Your task to perform on an android device: Go to location settings Image 0: 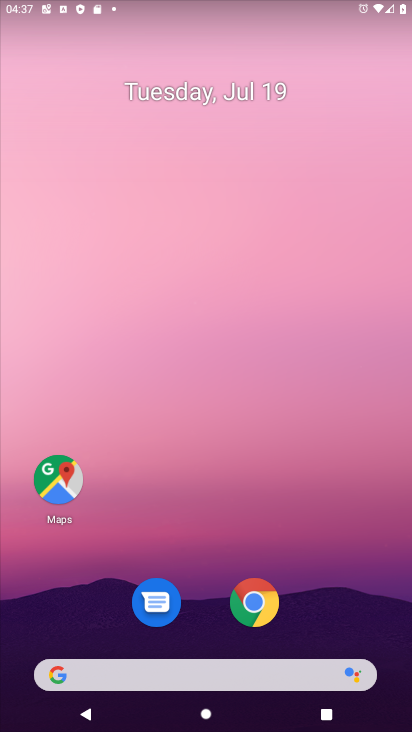
Step 0: drag from (220, 622) to (272, 141)
Your task to perform on an android device: Go to location settings Image 1: 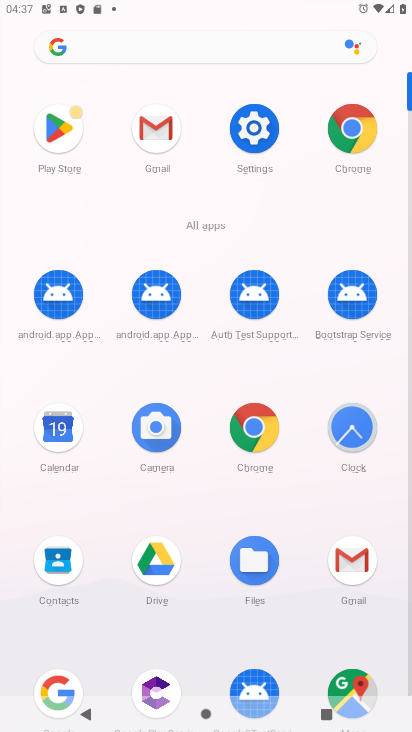
Step 1: click (255, 130)
Your task to perform on an android device: Go to location settings Image 2: 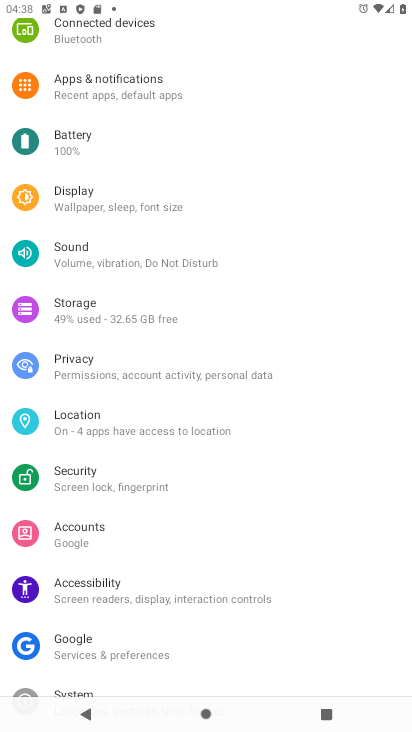
Step 2: click (131, 421)
Your task to perform on an android device: Go to location settings Image 3: 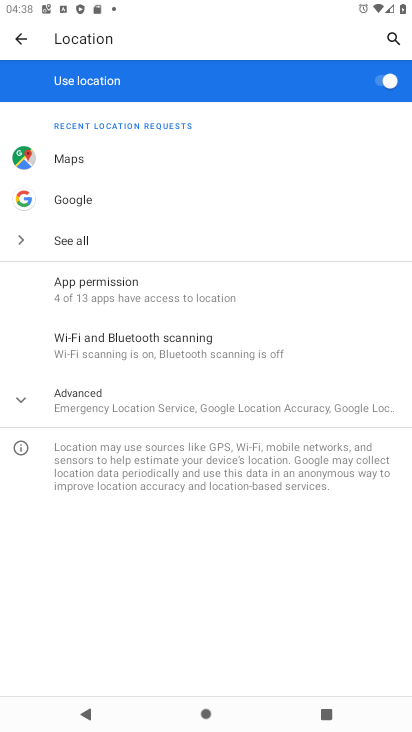
Step 3: task complete